Your task to perform on an android device: choose inbox layout in the gmail app Image 0: 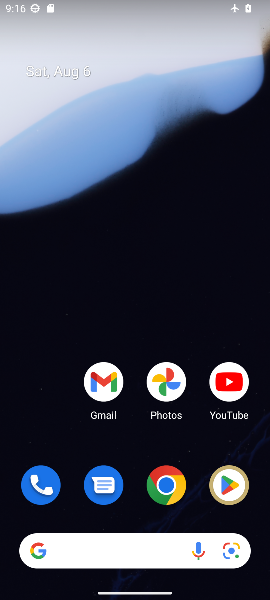
Step 0: drag from (197, 439) to (169, 78)
Your task to perform on an android device: choose inbox layout in the gmail app Image 1: 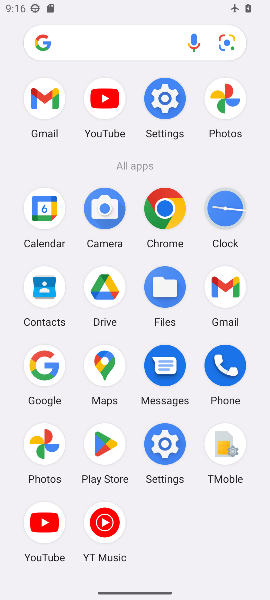
Step 1: click (235, 287)
Your task to perform on an android device: choose inbox layout in the gmail app Image 2: 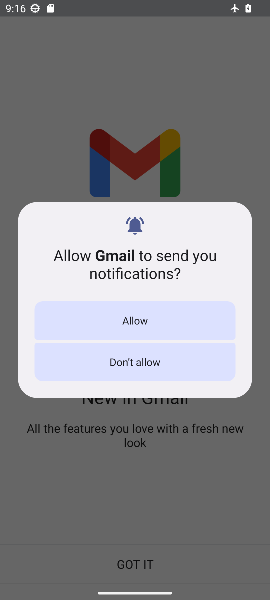
Step 2: click (157, 363)
Your task to perform on an android device: choose inbox layout in the gmail app Image 3: 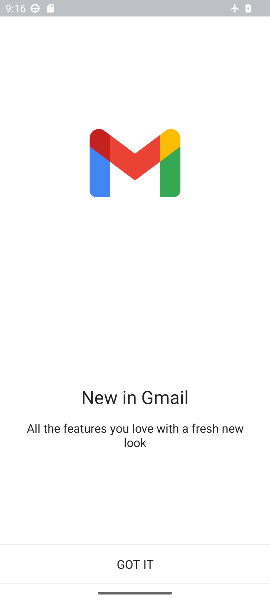
Step 3: click (118, 572)
Your task to perform on an android device: choose inbox layout in the gmail app Image 4: 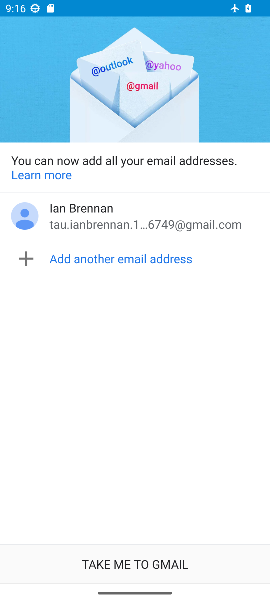
Step 4: click (140, 582)
Your task to perform on an android device: choose inbox layout in the gmail app Image 5: 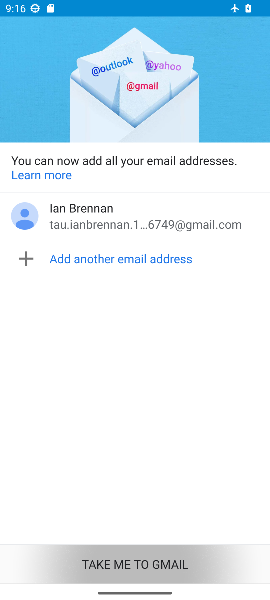
Step 5: click (141, 578)
Your task to perform on an android device: choose inbox layout in the gmail app Image 6: 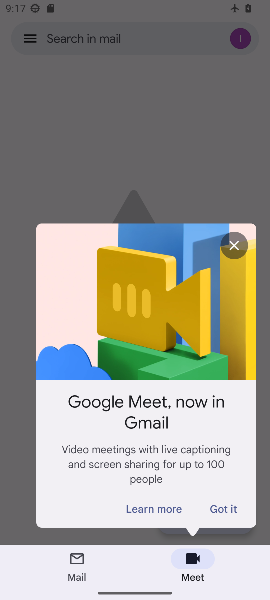
Step 6: click (80, 564)
Your task to perform on an android device: choose inbox layout in the gmail app Image 7: 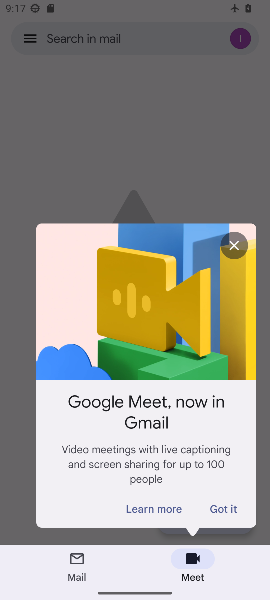
Step 7: click (28, 43)
Your task to perform on an android device: choose inbox layout in the gmail app Image 8: 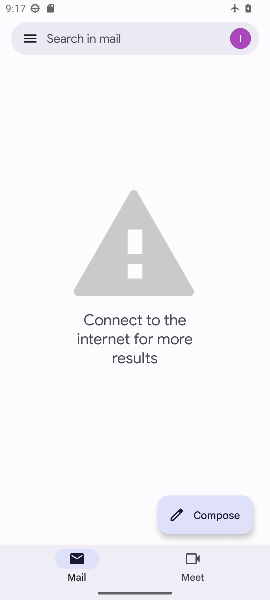
Step 8: click (26, 36)
Your task to perform on an android device: choose inbox layout in the gmail app Image 9: 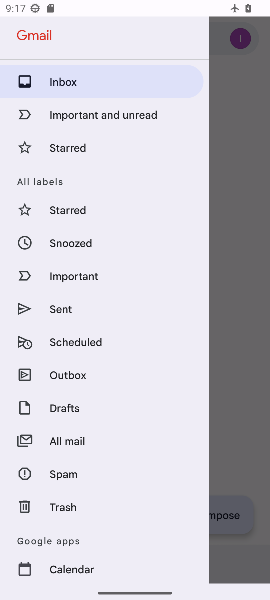
Step 9: drag from (97, 526) to (170, 204)
Your task to perform on an android device: choose inbox layout in the gmail app Image 10: 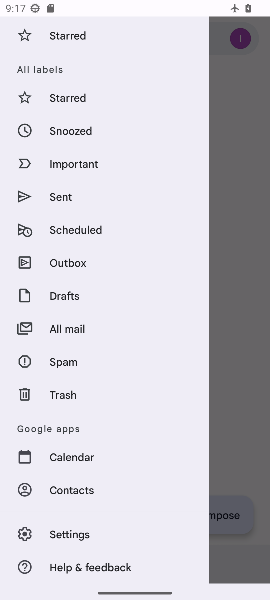
Step 10: click (81, 534)
Your task to perform on an android device: choose inbox layout in the gmail app Image 11: 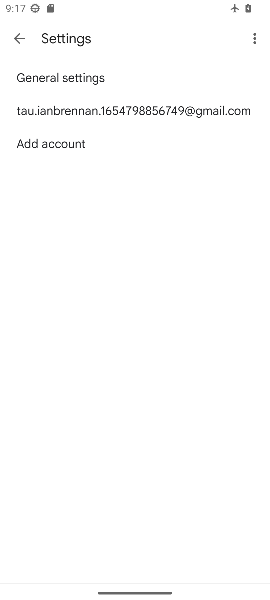
Step 11: click (112, 115)
Your task to perform on an android device: choose inbox layout in the gmail app Image 12: 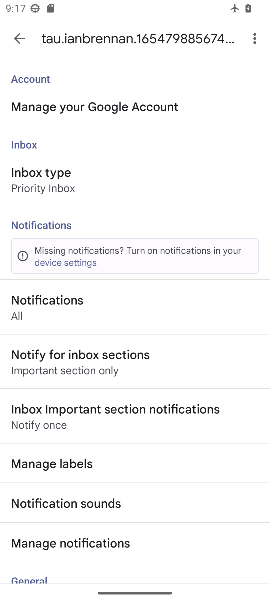
Step 12: click (25, 176)
Your task to perform on an android device: choose inbox layout in the gmail app Image 13: 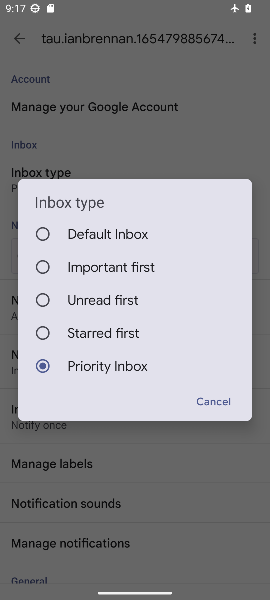
Step 13: task complete